Your task to perform on an android device: read, delete, or share a saved page in the chrome app Image 0: 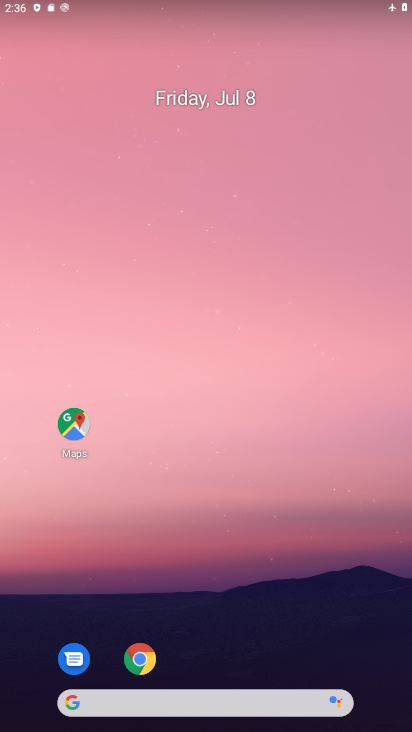
Step 0: drag from (202, 656) to (286, 40)
Your task to perform on an android device: read, delete, or share a saved page in the chrome app Image 1: 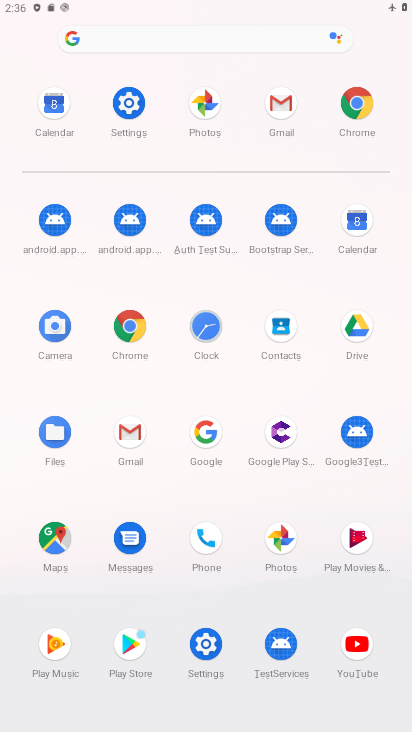
Step 1: click (139, 342)
Your task to perform on an android device: read, delete, or share a saved page in the chrome app Image 2: 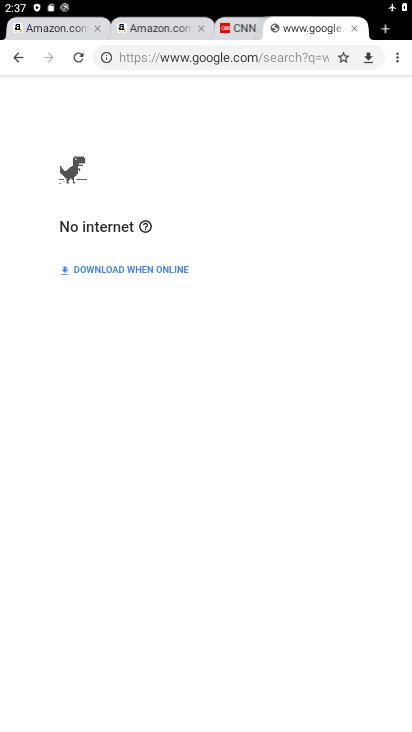
Step 2: click (397, 63)
Your task to perform on an android device: read, delete, or share a saved page in the chrome app Image 3: 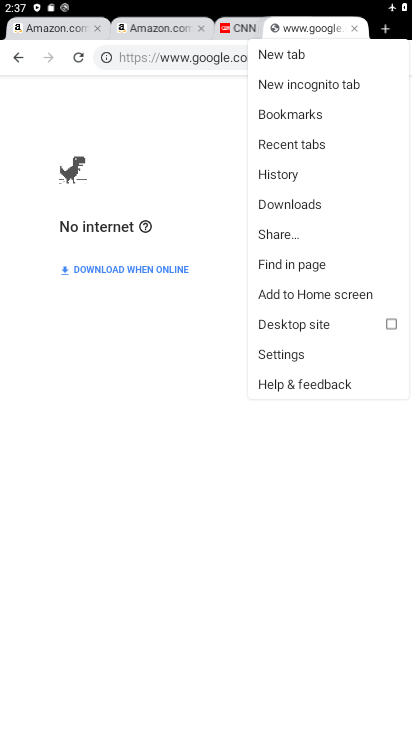
Step 3: click (134, 591)
Your task to perform on an android device: read, delete, or share a saved page in the chrome app Image 4: 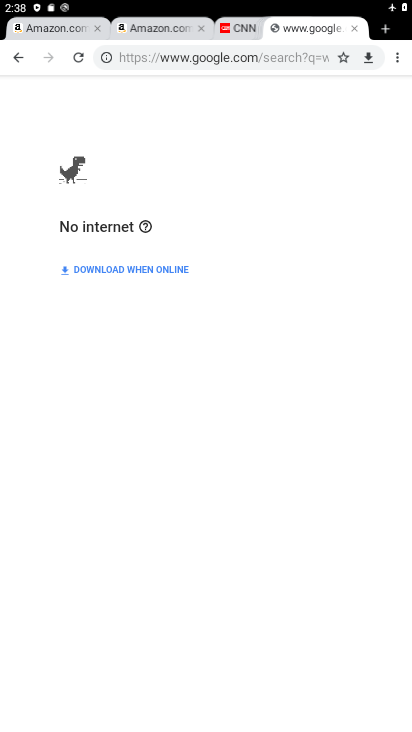
Step 4: task complete